Your task to perform on an android device: open app "Lyft - Rideshare, Bikes, Scooters & Transit" (install if not already installed) Image 0: 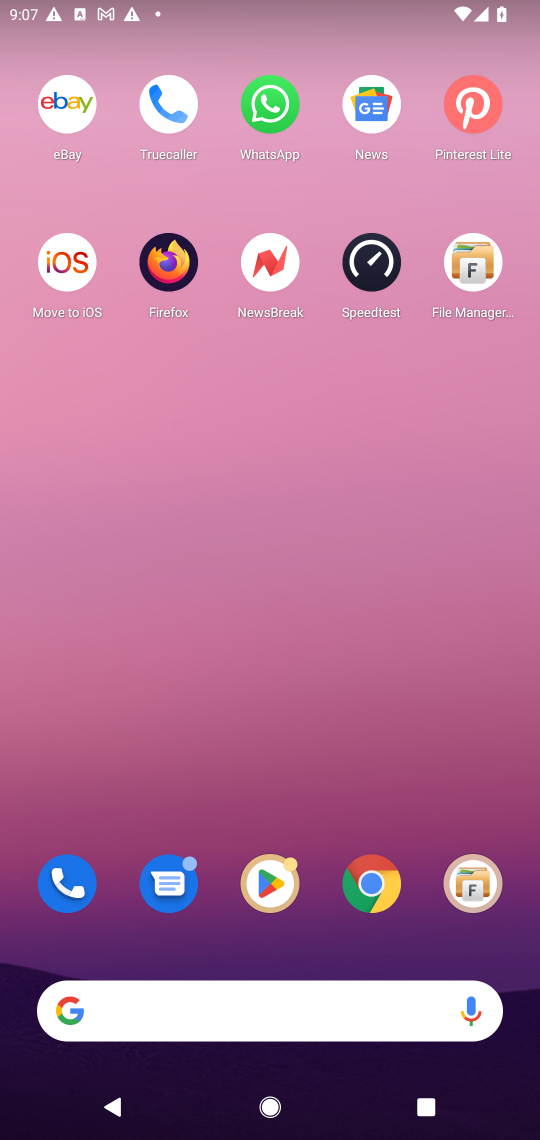
Step 0: click (272, 891)
Your task to perform on an android device: open app "Lyft - Rideshare, Bikes, Scooters & Transit" (install if not already installed) Image 1: 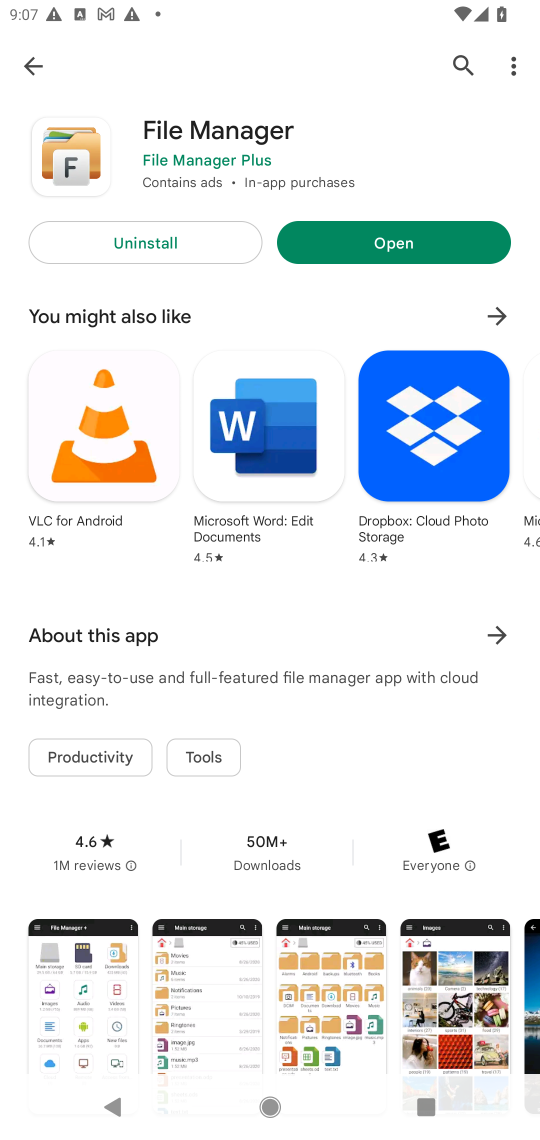
Step 1: press home button
Your task to perform on an android device: open app "Lyft - Rideshare, Bikes, Scooters & Transit" (install if not already installed) Image 2: 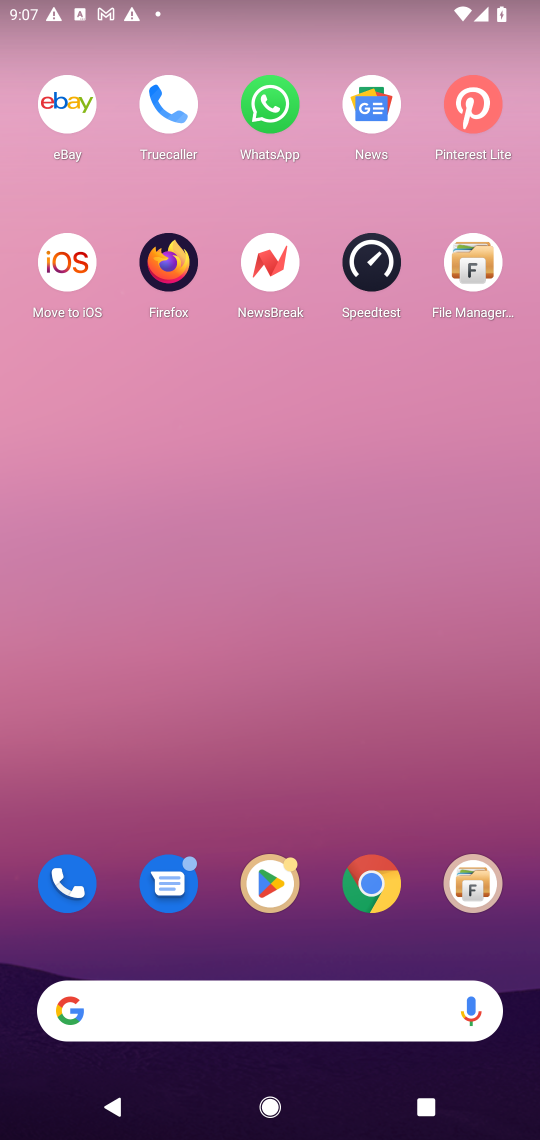
Step 2: click (260, 857)
Your task to perform on an android device: open app "Lyft - Rideshare, Bikes, Scooters & Transit" (install if not already installed) Image 3: 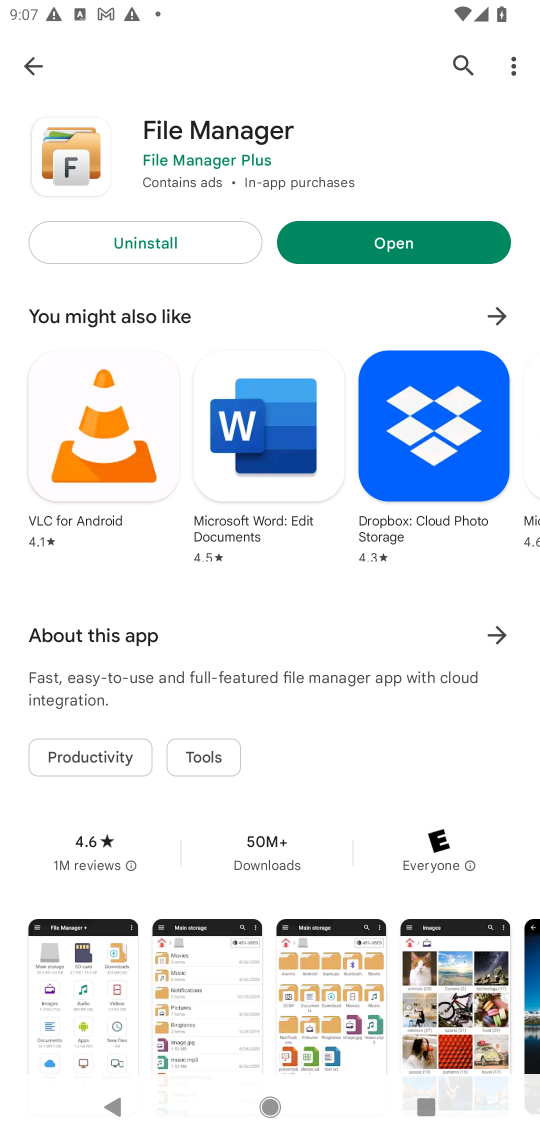
Step 3: click (464, 56)
Your task to perform on an android device: open app "Lyft - Rideshare, Bikes, Scooters & Transit" (install if not already installed) Image 4: 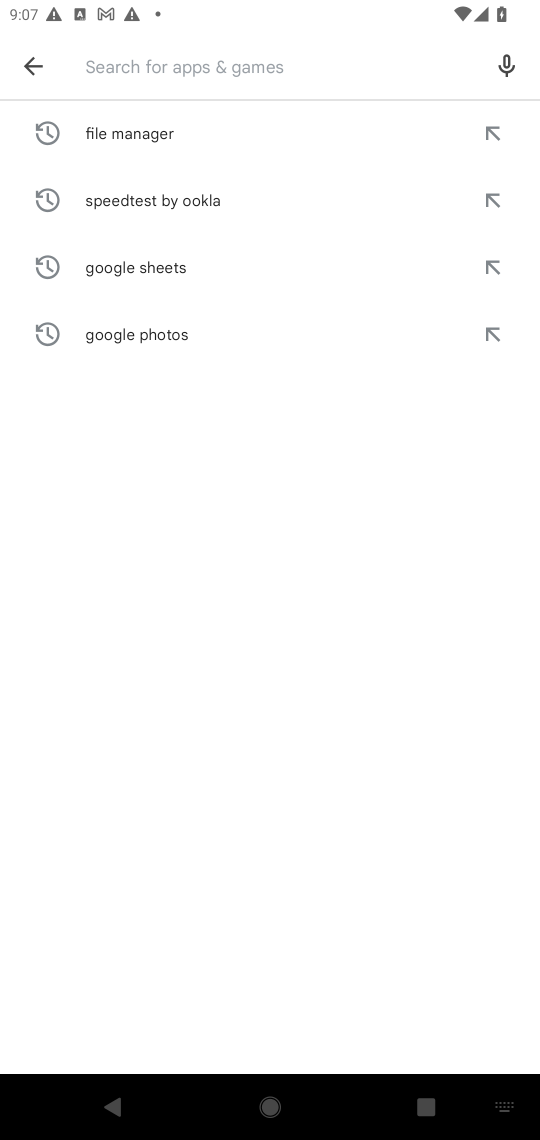
Step 4: click (226, 76)
Your task to perform on an android device: open app "Lyft - Rideshare, Bikes, Scooters & Transit" (install if not already installed) Image 5: 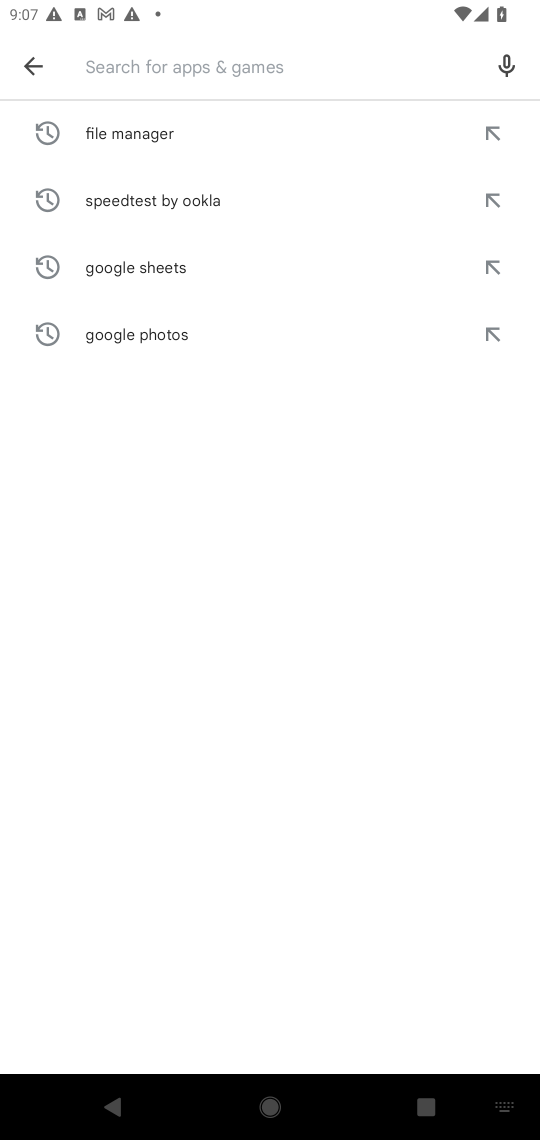
Step 5: type "Lyft - Rideshare, Bikes, Scooters & Transit"
Your task to perform on an android device: open app "Lyft - Rideshare, Bikes, Scooters & Transit" (install if not already installed) Image 6: 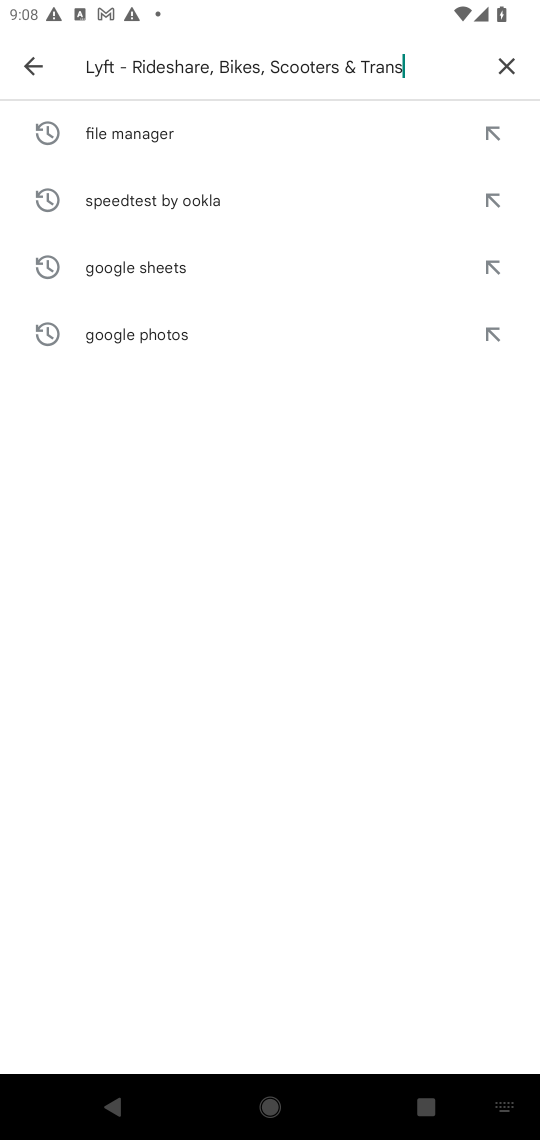
Step 6: type ""
Your task to perform on an android device: open app "Lyft - Rideshare, Bikes, Scooters & Transit" (install if not already installed) Image 7: 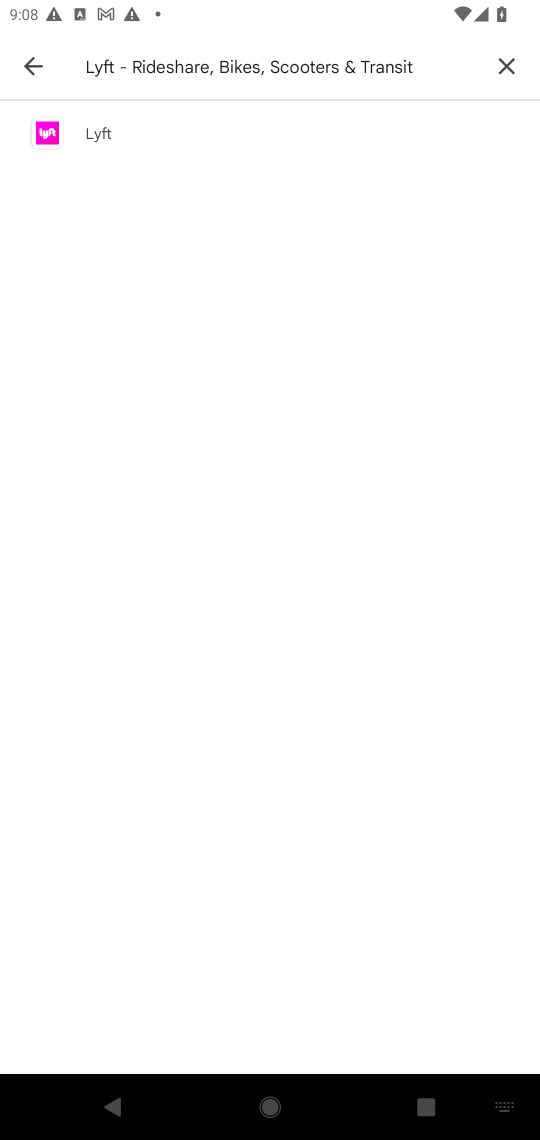
Step 7: click (169, 137)
Your task to perform on an android device: open app "Lyft - Rideshare, Bikes, Scooters & Transit" (install if not already installed) Image 8: 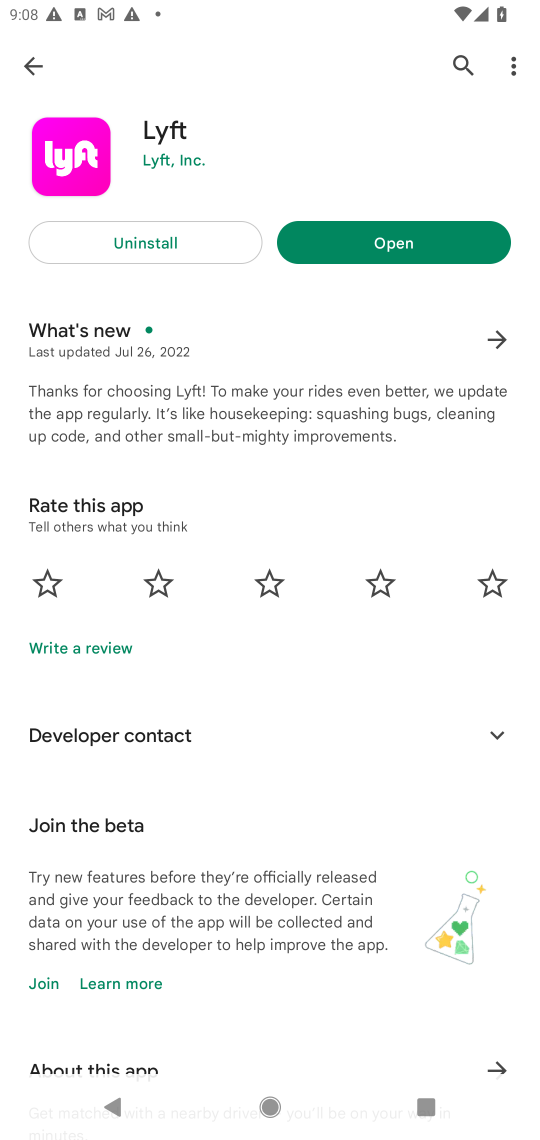
Step 8: click (376, 238)
Your task to perform on an android device: open app "Lyft - Rideshare, Bikes, Scooters & Transit" (install if not already installed) Image 9: 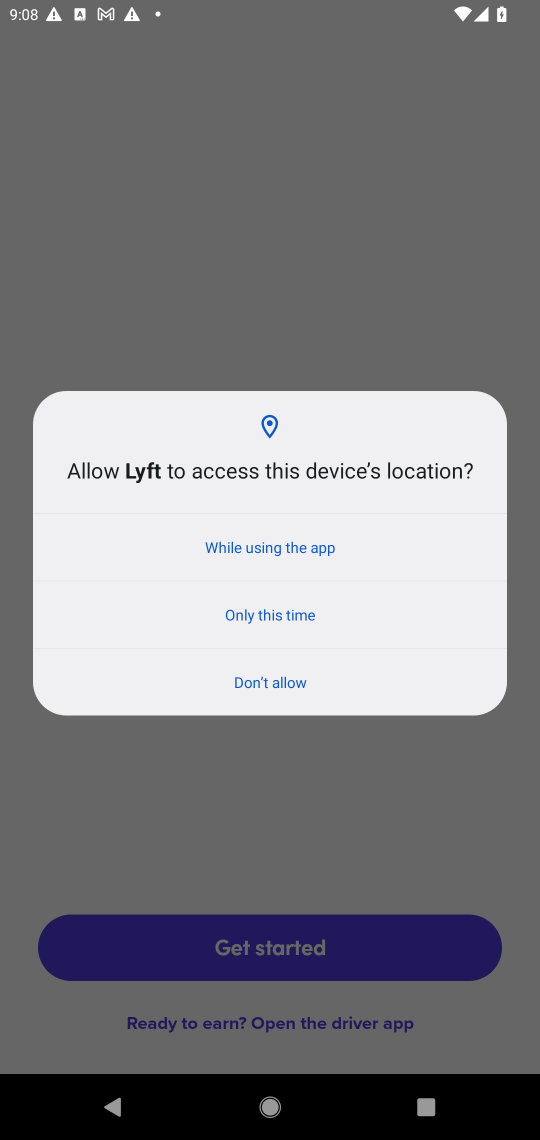
Step 9: task complete